Your task to perform on an android device: change the upload size in google photos Image 0: 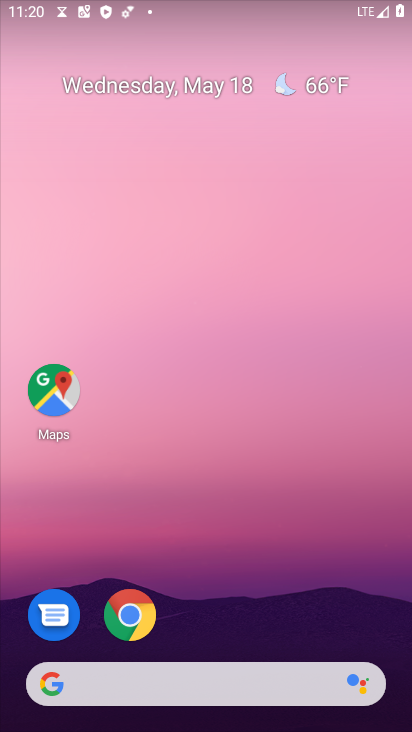
Step 0: drag from (281, 589) to (190, 1)
Your task to perform on an android device: change the upload size in google photos Image 1: 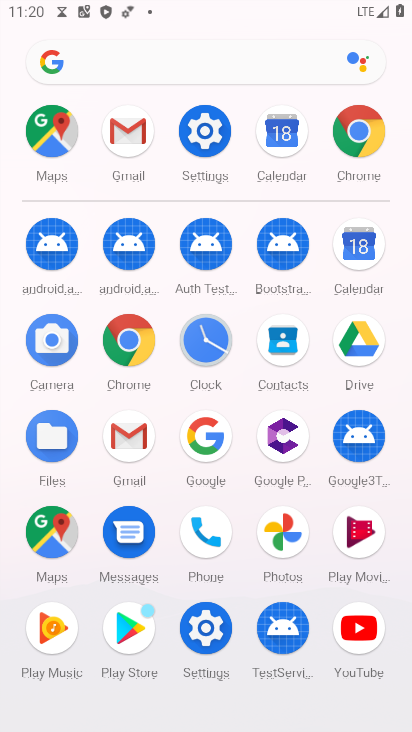
Step 1: drag from (6, 531) to (21, 300)
Your task to perform on an android device: change the upload size in google photos Image 2: 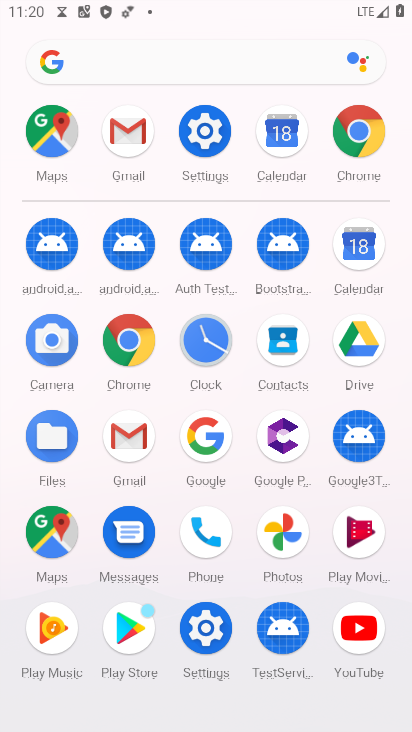
Step 2: click (287, 526)
Your task to perform on an android device: change the upload size in google photos Image 3: 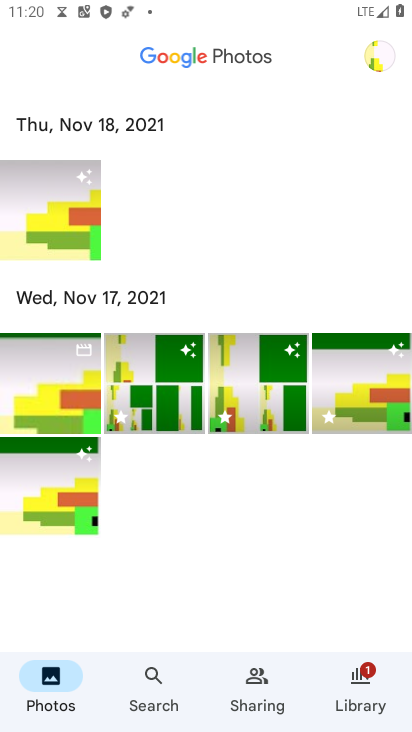
Step 3: click (376, 47)
Your task to perform on an android device: change the upload size in google photos Image 4: 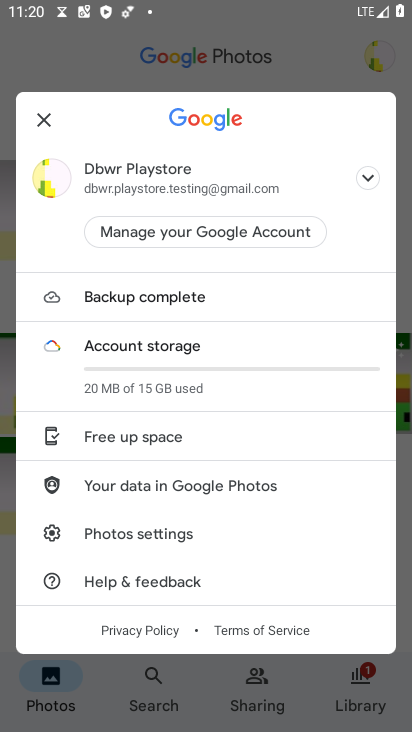
Step 4: click (128, 537)
Your task to perform on an android device: change the upload size in google photos Image 5: 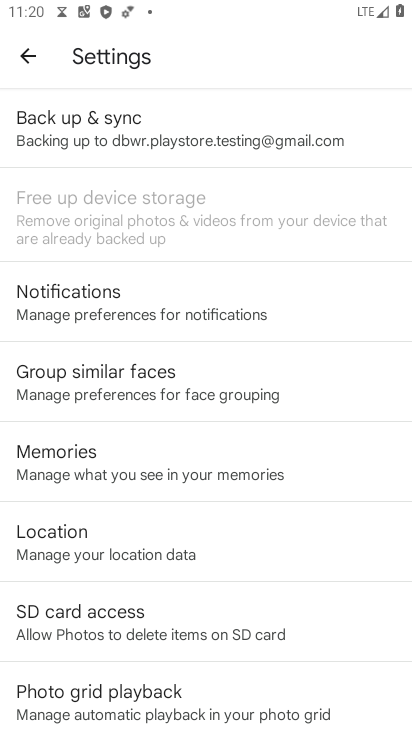
Step 5: click (162, 144)
Your task to perform on an android device: change the upload size in google photos Image 6: 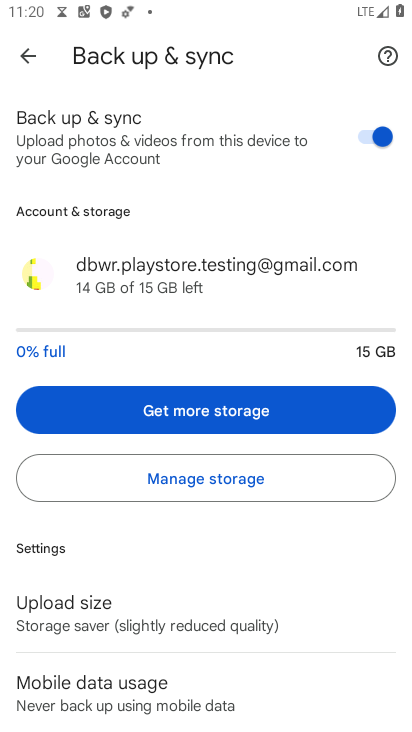
Step 6: click (195, 628)
Your task to perform on an android device: change the upload size in google photos Image 7: 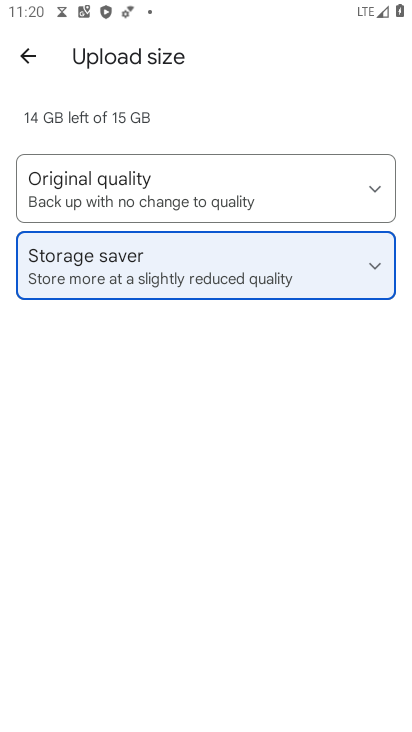
Step 7: click (148, 178)
Your task to perform on an android device: change the upload size in google photos Image 8: 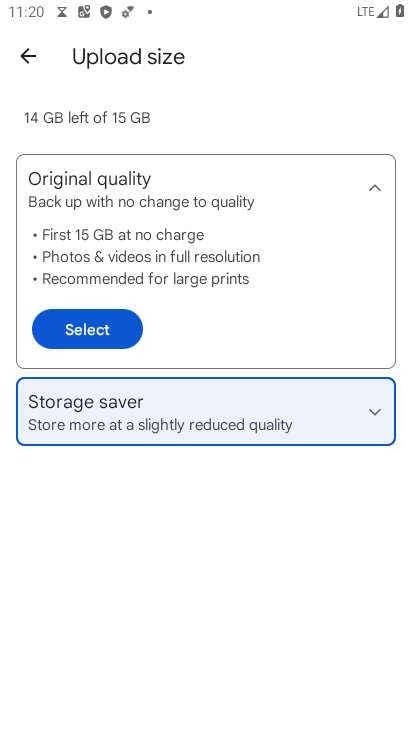
Step 8: click (69, 327)
Your task to perform on an android device: change the upload size in google photos Image 9: 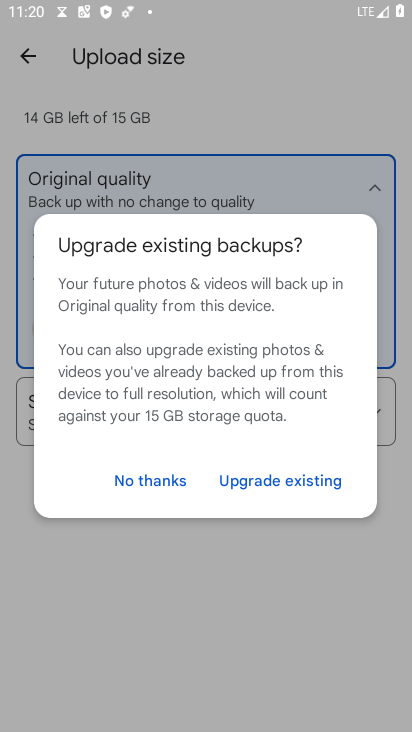
Step 9: click (146, 484)
Your task to perform on an android device: change the upload size in google photos Image 10: 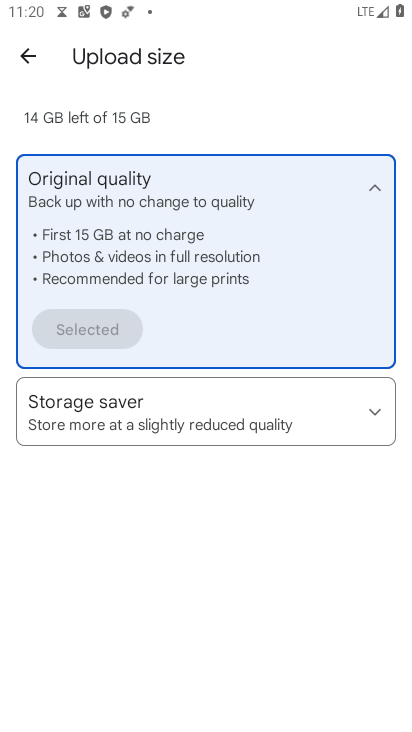
Step 10: task complete